Your task to perform on an android device: turn off improve location accuracy Image 0: 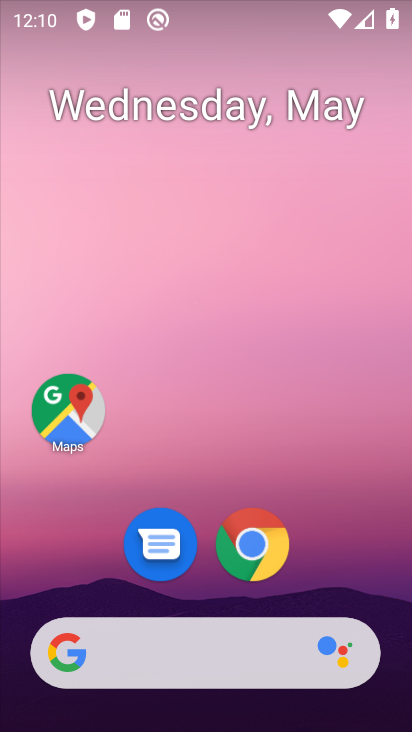
Step 0: drag from (359, 581) to (360, 224)
Your task to perform on an android device: turn off improve location accuracy Image 1: 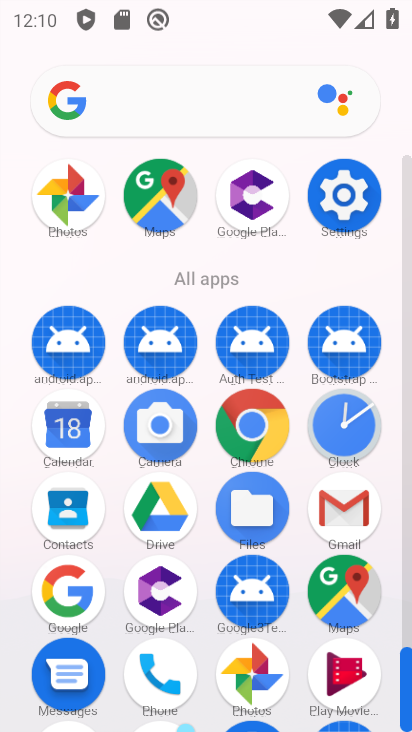
Step 1: click (357, 195)
Your task to perform on an android device: turn off improve location accuracy Image 2: 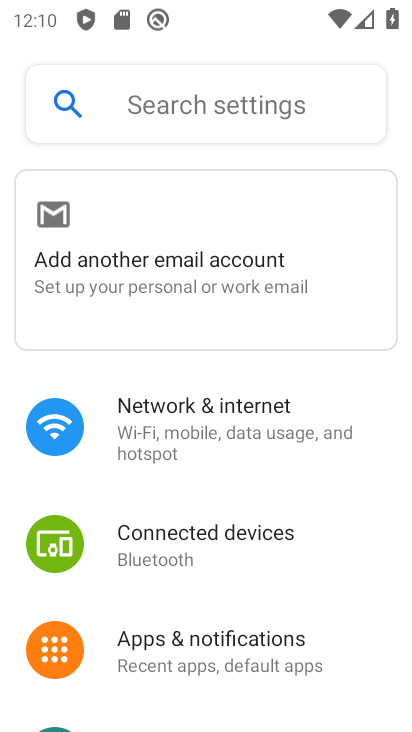
Step 2: drag from (197, 585) to (271, 309)
Your task to perform on an android device: turn off improve location accuracy Image 3: 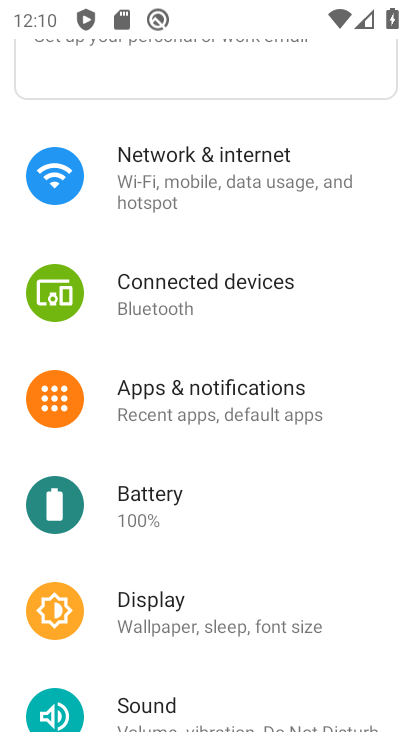
Step 3: drag from (158, 624) to (225, 367)
Your task to perform on an android device: turn off improve location accuracy Image 4: 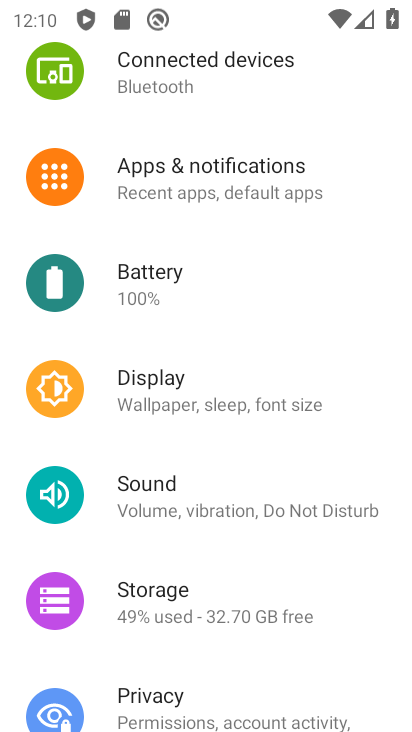
Step 4: drag from (186, 579) to (272, 239)
Your task to perform on an android device: turn off improve location accuracy Image 5: 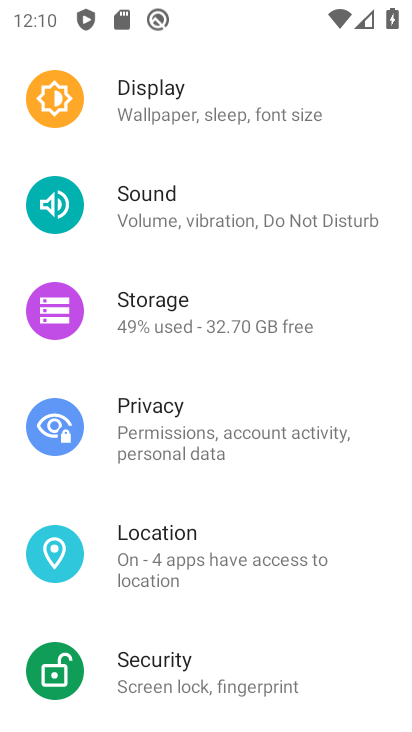
Step 5: drag from (147, 625) to (225, 310)
Your task to perform on an android device: turn off improve location accuracy Image 6: 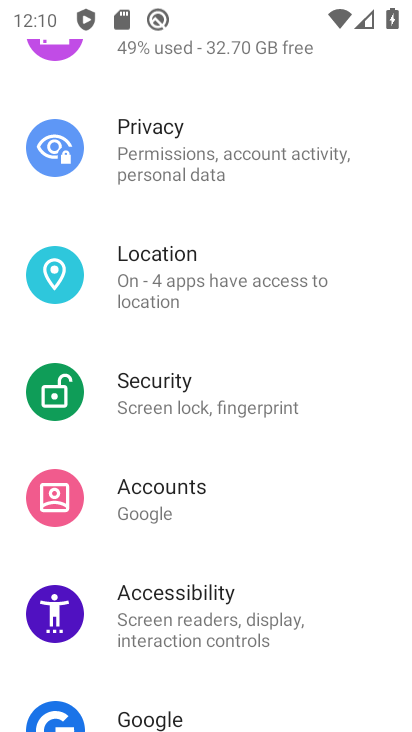
Step 6: drag from (156, 606) to (291, 301)
Your task to perform on an android device: turn off improve location accuracy Image 7: 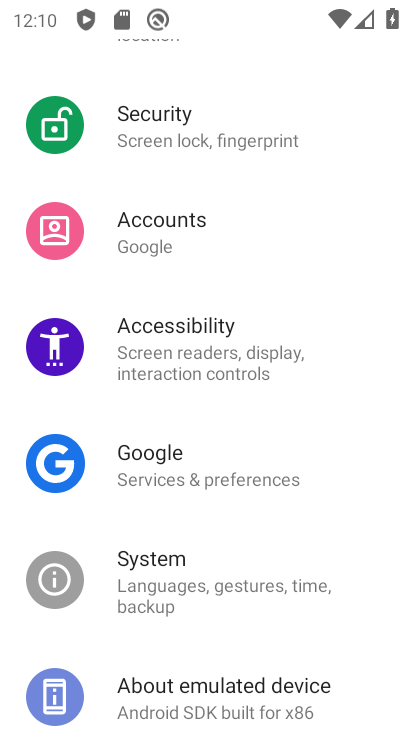
Step 7: drag from (206, 344) to (167, 665)
Your task to perform on an android device: turn off improve location accuracy Image 8: 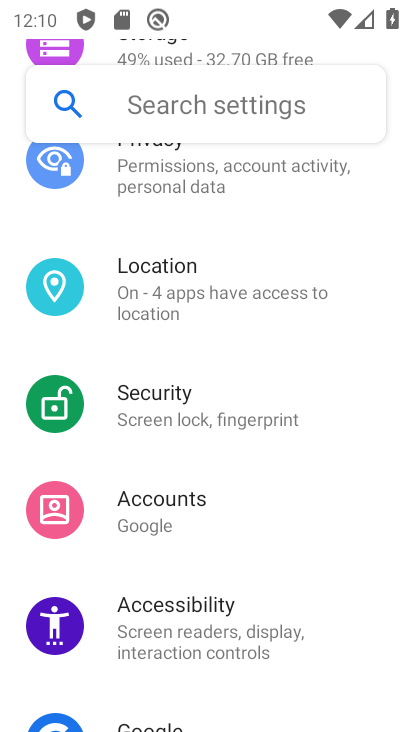
Step 8: drag from (208, 333) to (211, 657)
Your task to perform on an android device: turn off improve location accuracy Image 9: 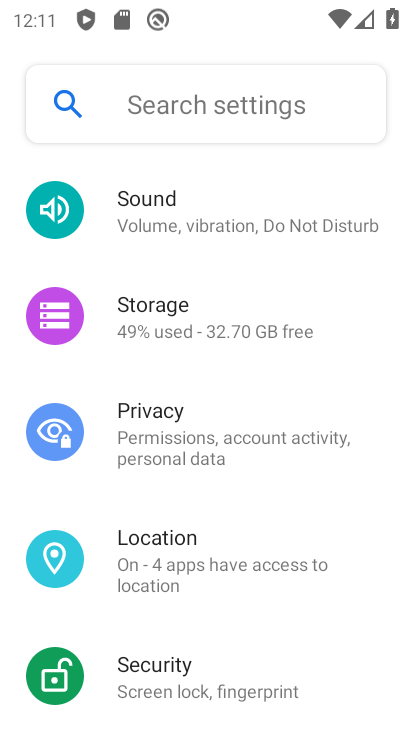
Step 9: drag from (205, 620) to (284, 246)
Your task to perform on an android device: turn off improve location accuracy Image 10: 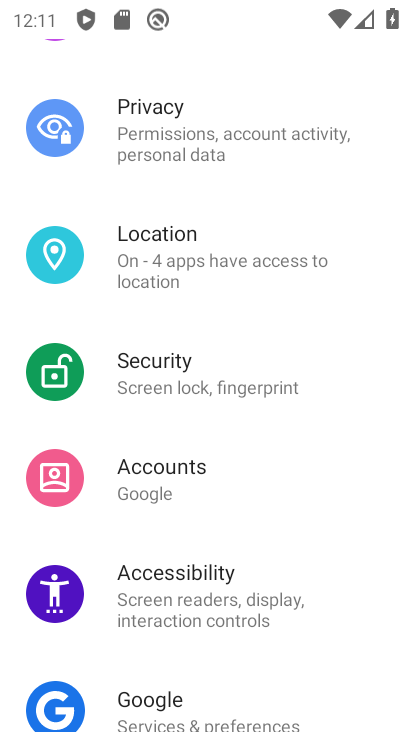
Step 10: drag from (208, 616) to (254, 436)
Your task to perform on an android device: turn off improve location accuracy Image 11: 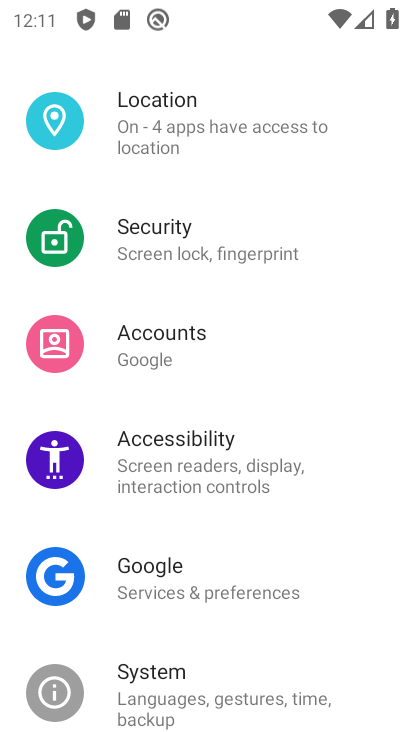
Step 11: drag from (256, 307) to (215, 607)
Your task to perform on an android device: turn off improve location accuracy Image 12: 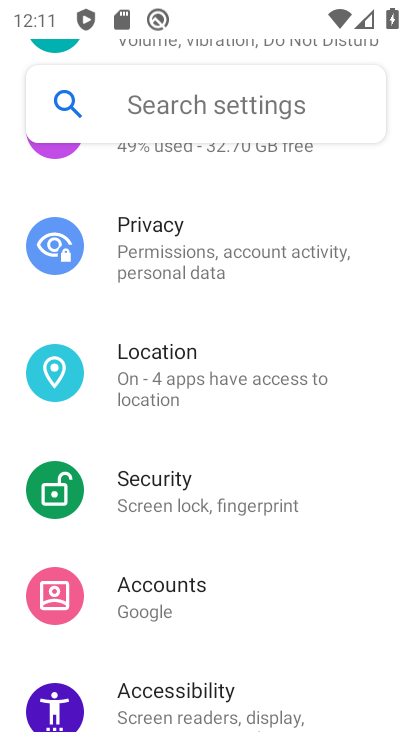
Step 12: drag from (241, 374) to (217, 641)
Your task to perform on an android device: turn off improve location accuracy Image 13: 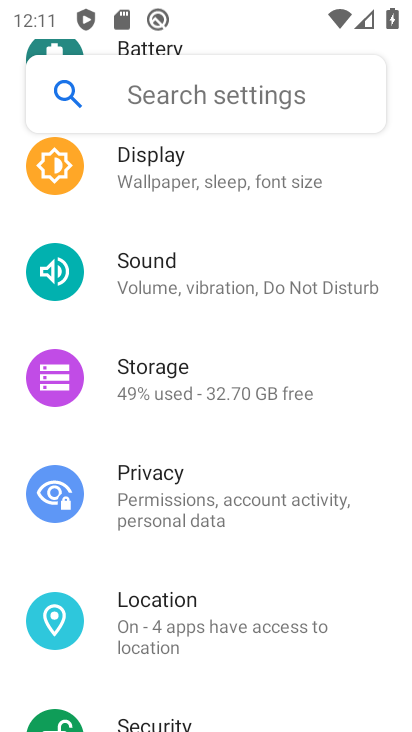
Step 13: drag from (256, 351) to (246, 613)
Your task to perform on an android device: turn off improve location accuracy Image 14: 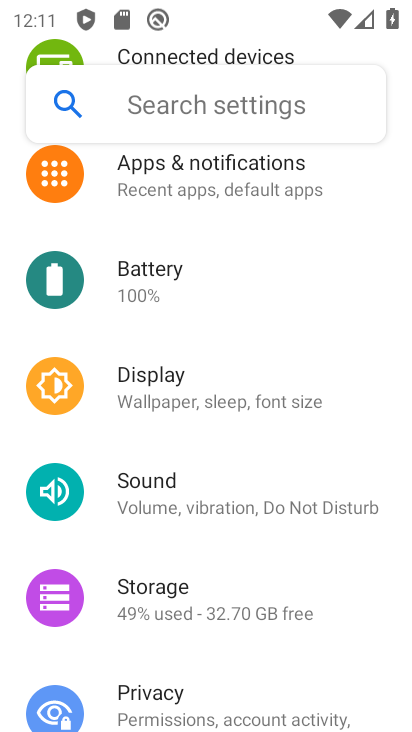
Step 14: drag from (233, 609) to (324, 326)
Your task to perform on an android device: turn off improve location accuracy Image 15: 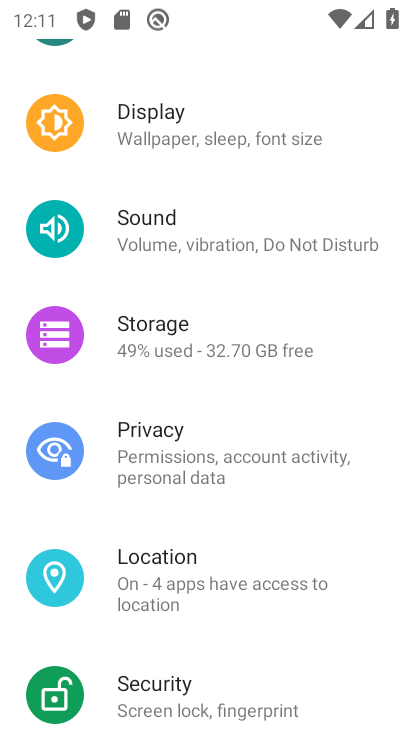
Step 15: click (197, 559)
Your task to perform on an android device: turn off improve location accuracy Image 16: 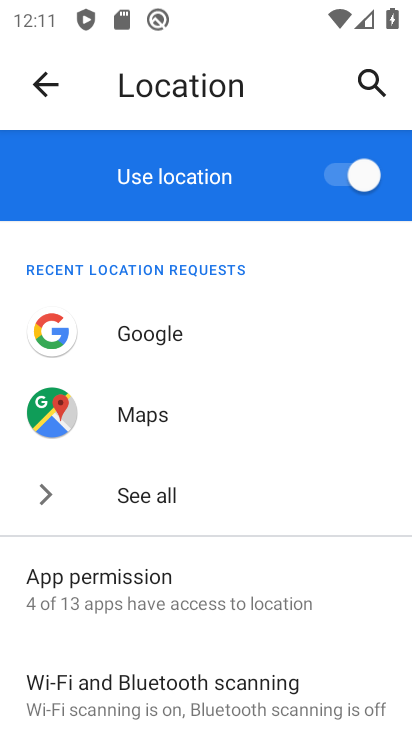
Step 16: drag from (233, 668) to (304, 351)
Your task to perform on an android device: turn off improve location accuracy Image 17: 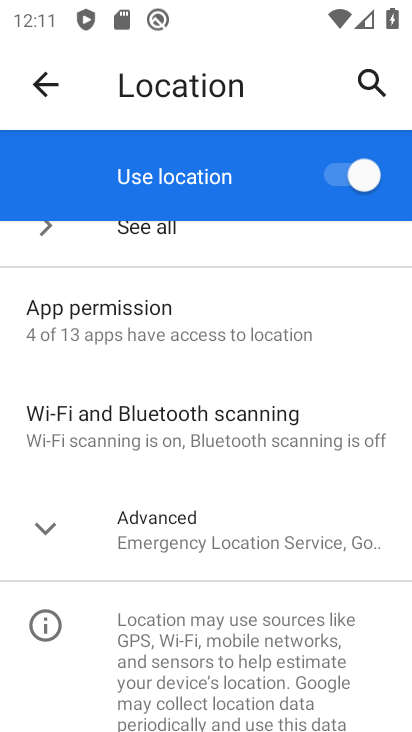
Step 17: click (226, 548)
Your task to perform on an android device: turn off improve location accuracy Image 18: 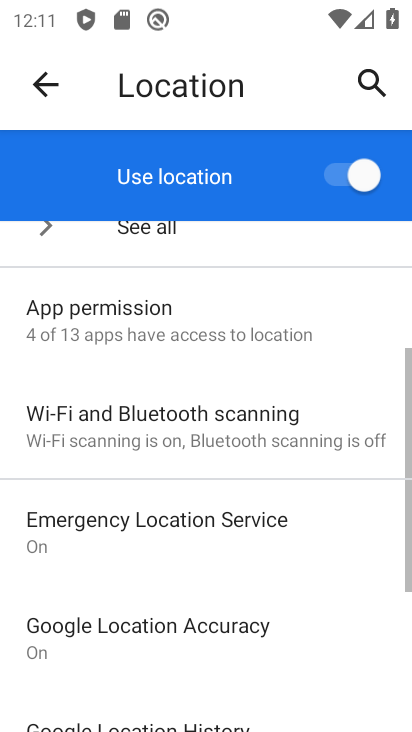
Step 18: drag from (225, 640) to (305, 370)
Your task to perform on an android device: turn off improve location accuracy Image 19: 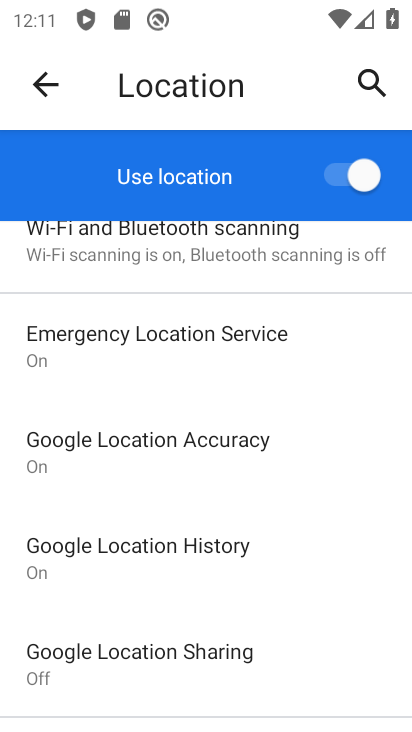
Step 19: click (216, 451)
Your task to perform on an android device: turn off improve location accuracy Image 20: 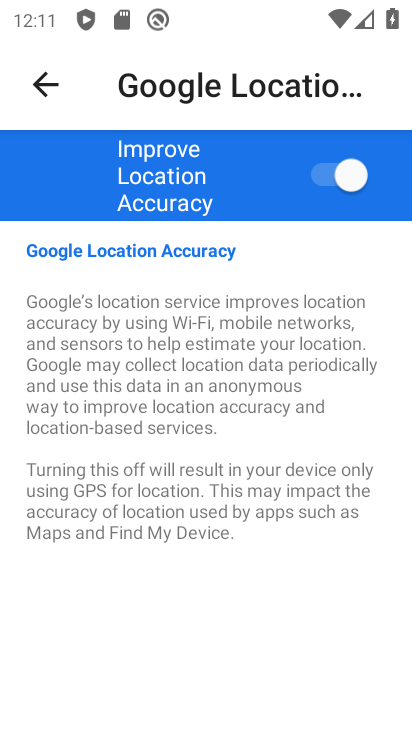
Step 20: click (332, 161)
Your task to perform on an android device: turn off improve location accuracy Image 21: 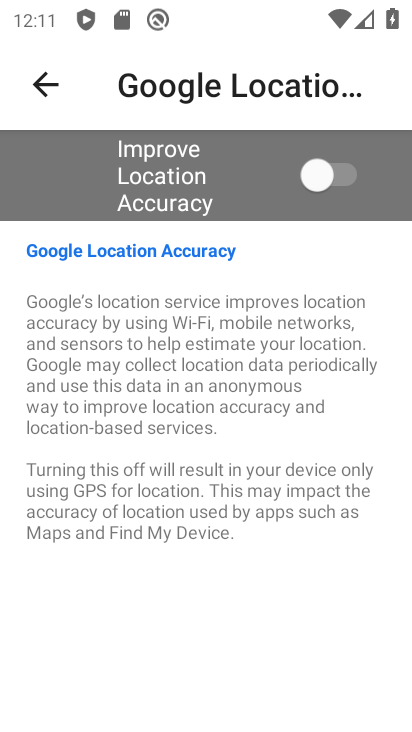
Step 21: task complete